Your task to perform on an android device: turn notification dots on Image 0: 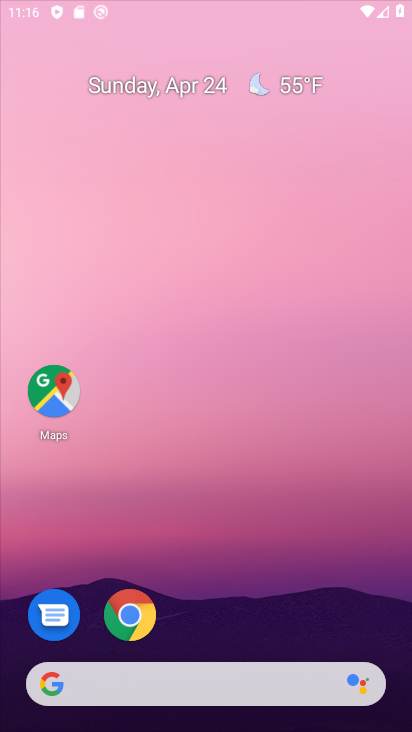
Step 0: drag from (208, 603) to (225, 140)
Your task to perform on an android device: turn notification dots on Image 1: 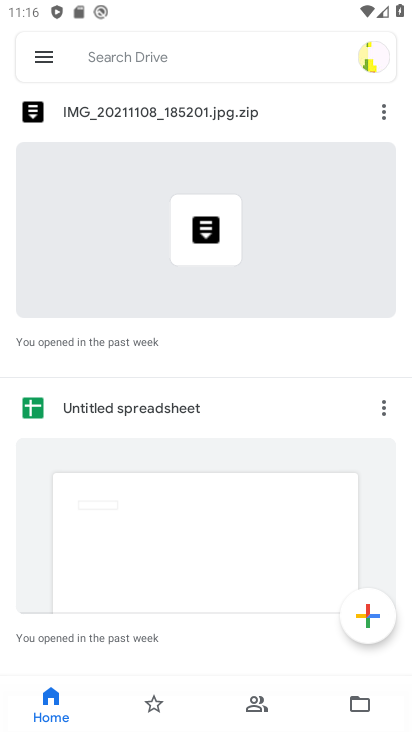
Step 1: press home button
Your task to perform on an android device: turn notification dots on Image 2: 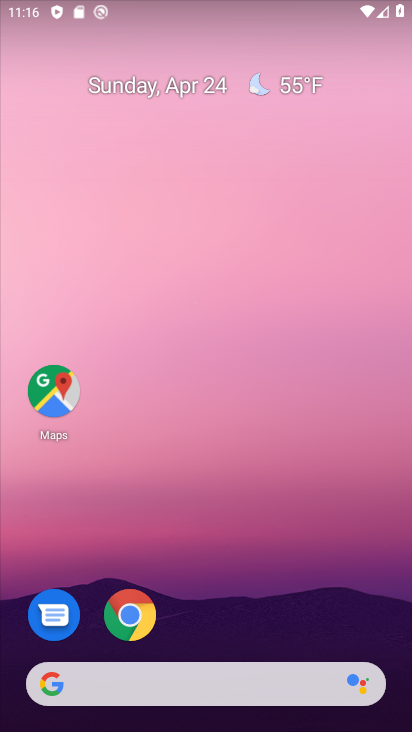
Step 2: drag from (211, 641) to (245, 229)
Your task to perform on an android device: turn notification dots on Image 3: 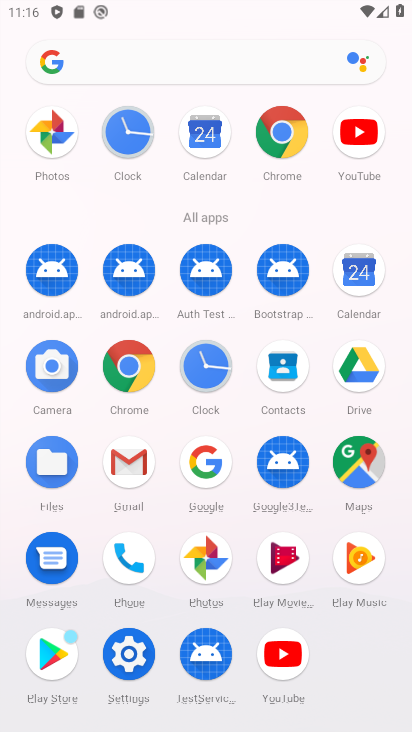
Step 3: click (125, 649)
Your task to perform on an android device: turn notification dots on Image 4: 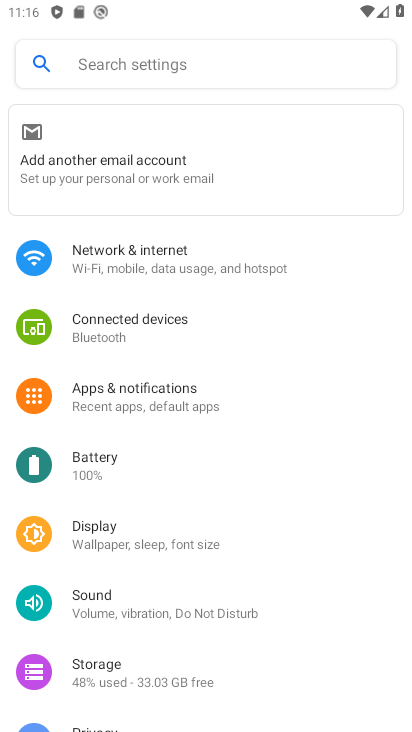
Step 4: click (177, 392)
Your task to perform on an android device: turn notification dots on Image 5: 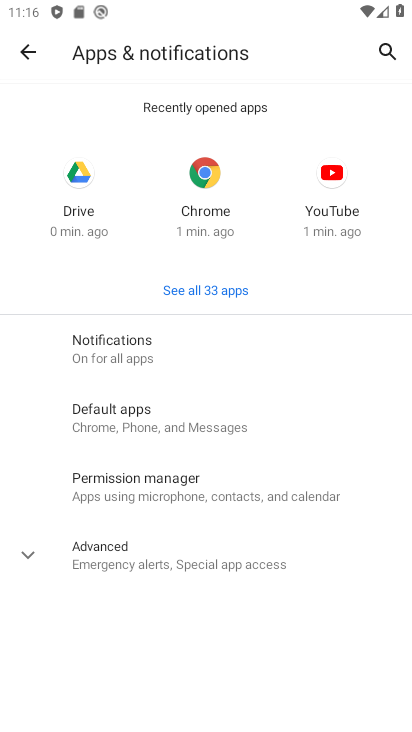
Step 5: click (154, 344)
Your task to perform on an android device: turn notification dots on Image 6: 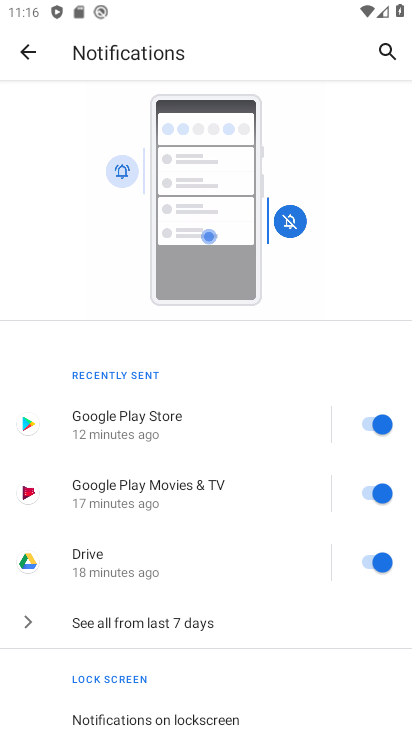
Step 6: drag from (213, 658) to (233, 327)
Your task to perform on an android device: turn notification dots on Image 7: 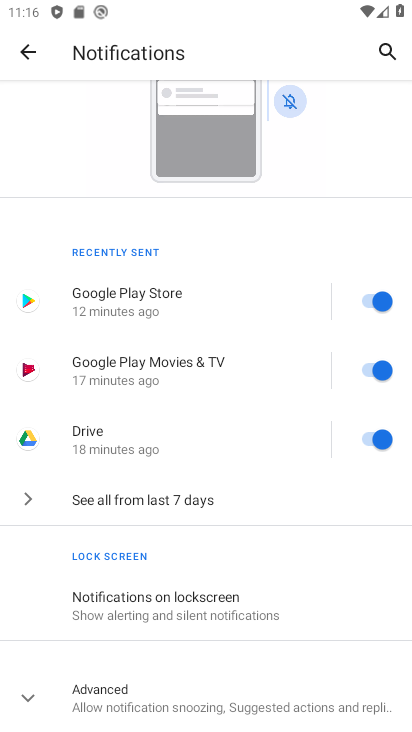
Step 7: click (34, 694)
Your task to perform on an android device: turn notification dots on Image 8: 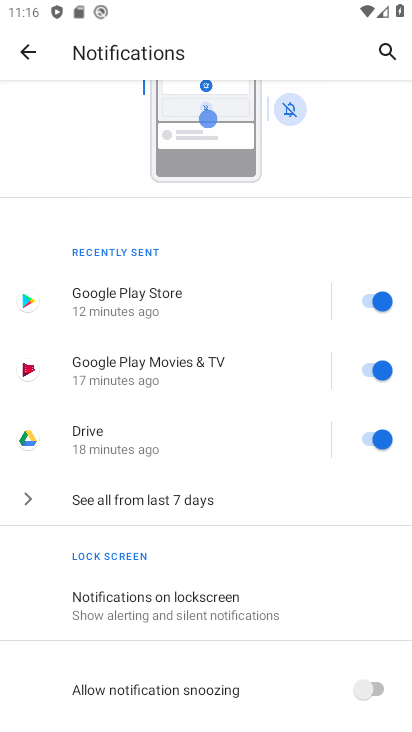
Step 8: task complete